Your task to perform on an android device: Open the web browser Image 0: 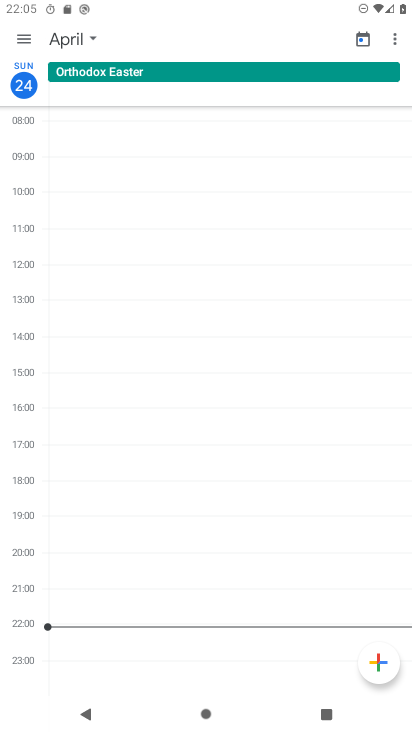
Step 0: press home button
Your task to perform on an android device: Open the web browser Image 1: 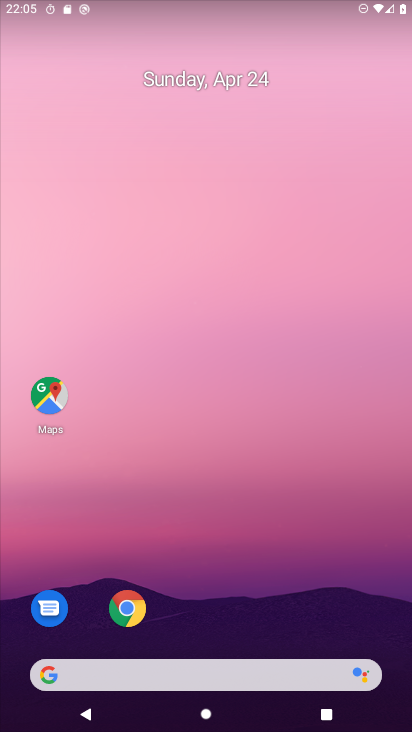
Step 1: click (191, 679)
Your task to perform on an android device: Open the web browser Image 2: 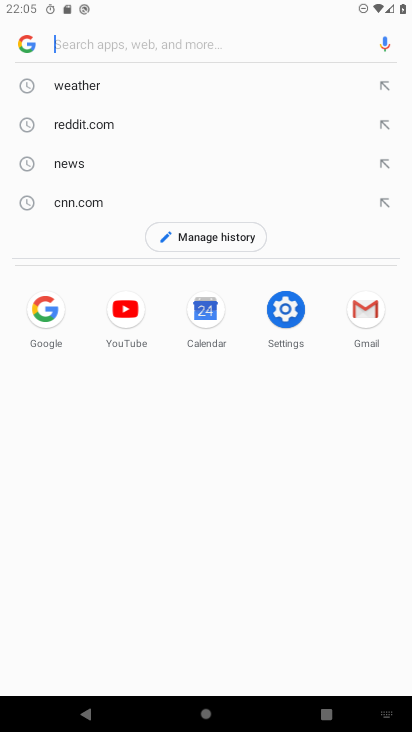
Step 2: task complete